Your task to perform on an android device: toggle show notifications on the lock screen Image 0: 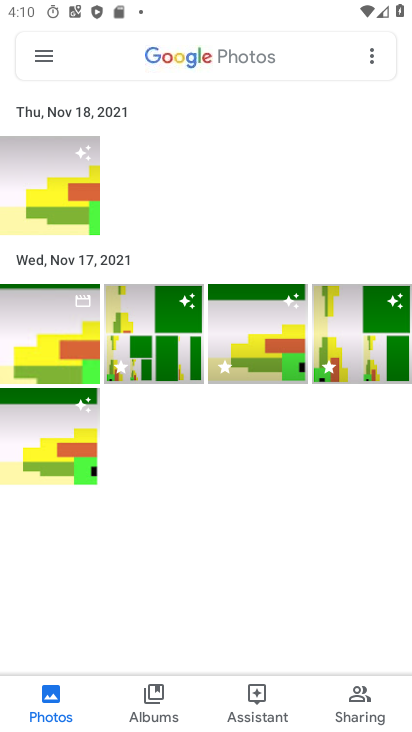
Step 0: press home button
Your task to perform on an android device: toggle show notifications on the lock screen Image 1: 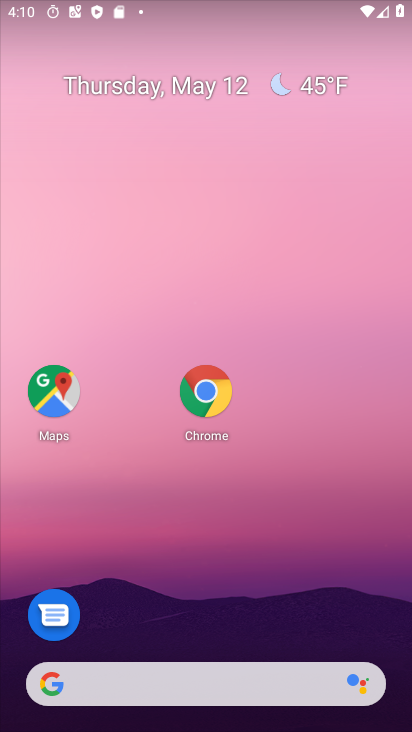
Step 1: drag from (204, 600) to (224, 134)
Your task to perform on an android device: toggle show notifications on the lock screen Image 2: 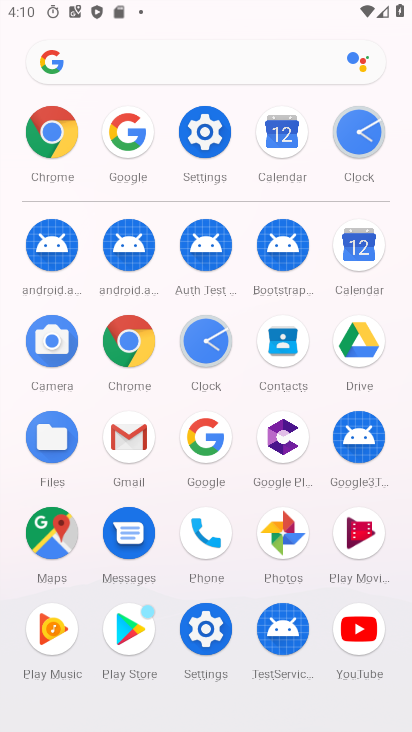
Step 2: click (201, 137)
Your task to perform on an android device: toggle show notifications on the lock screen Image 3: 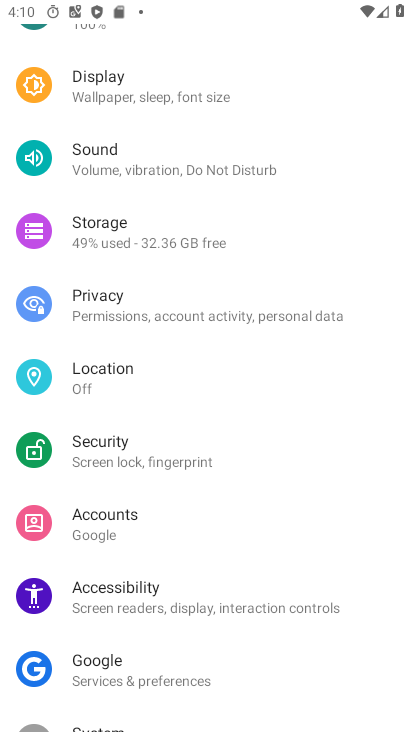
Step 3: drag from (148, 177) to (195, 581)
Your task to perform on an android device: toggle show notifications on the lock screen Image 4: 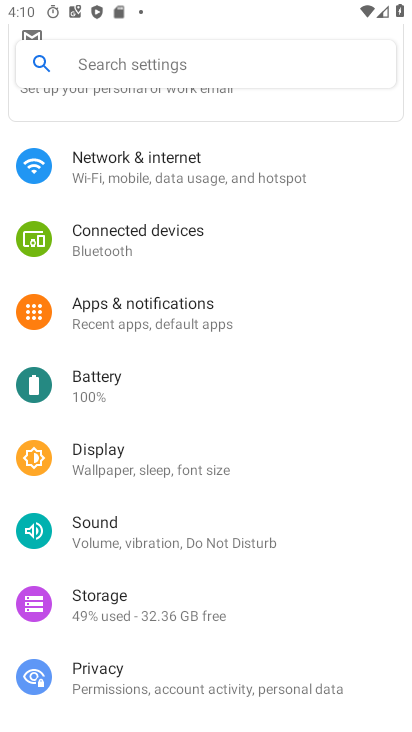
Step 4: click (126, 312)
Your task to perform on an android device: toggle show notifications on the lock screen Image 5: 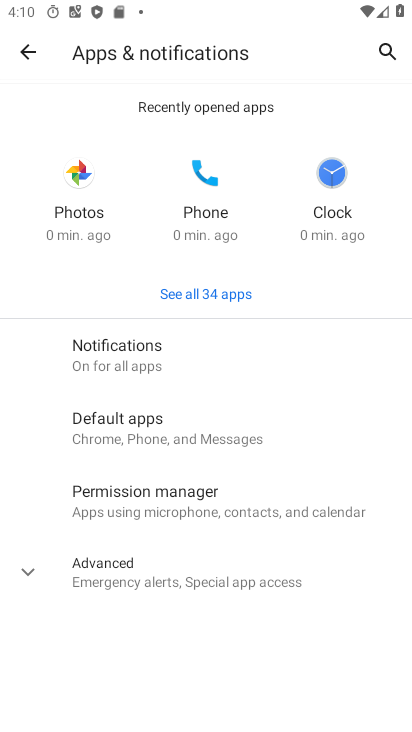
Step 5: click (144, 360)
Your task to perform on an android device: toggle show notifications on the lock screen Image 6: 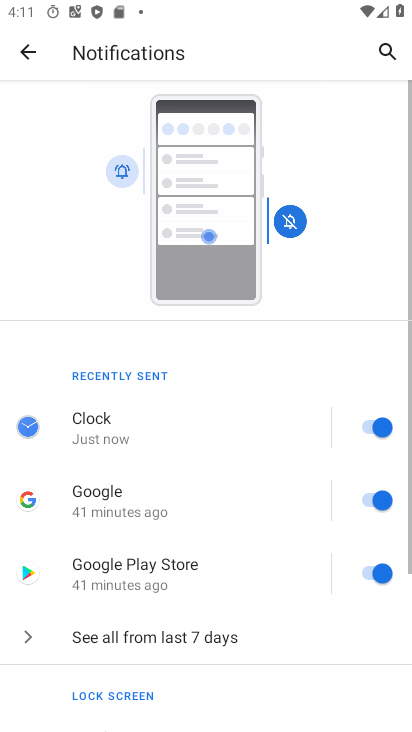
Step 6: drag from (207, 600) to (233, 106)
Your task to perform on an android device: toggle show notifications on the lock screen Image 7: 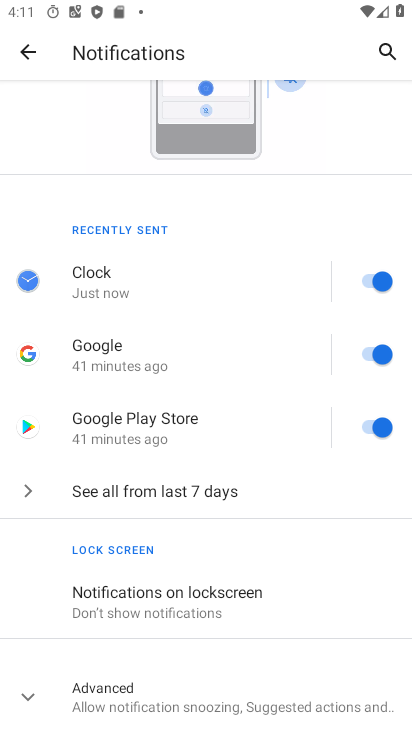
Step 7: click (156, 608)
Your task to perform on an android device: toggle show notifications on the lock screen Image 8: 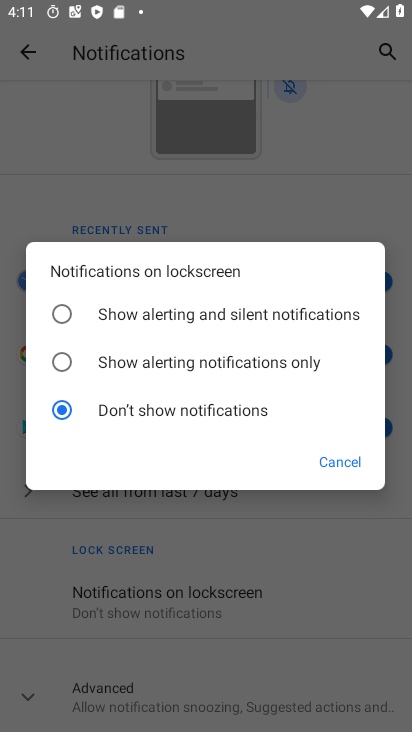
Step 8: click (60, 312)
Your task to perform on an android device: toggle show notifications on the lock screen Image 9: 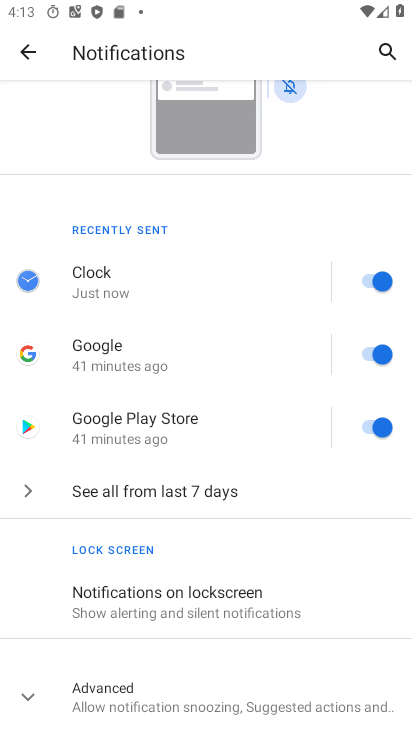
Step 9: task complete